Your task to perform on an android device: turn on airplane mode Image 0: 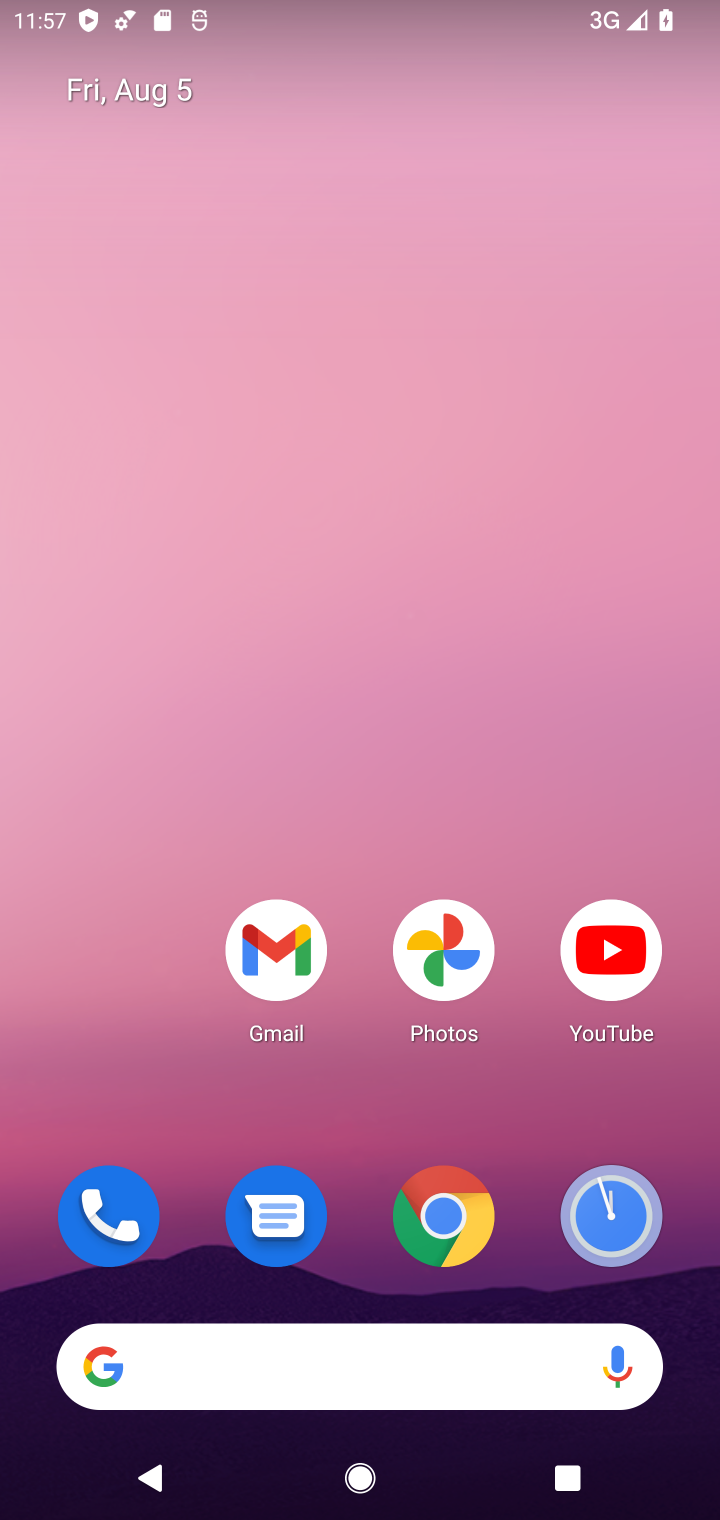
Step 0: drag from (441, 1343) to (403, 597)
Your task to perform on an android device: turn on airplane mode Image 1: 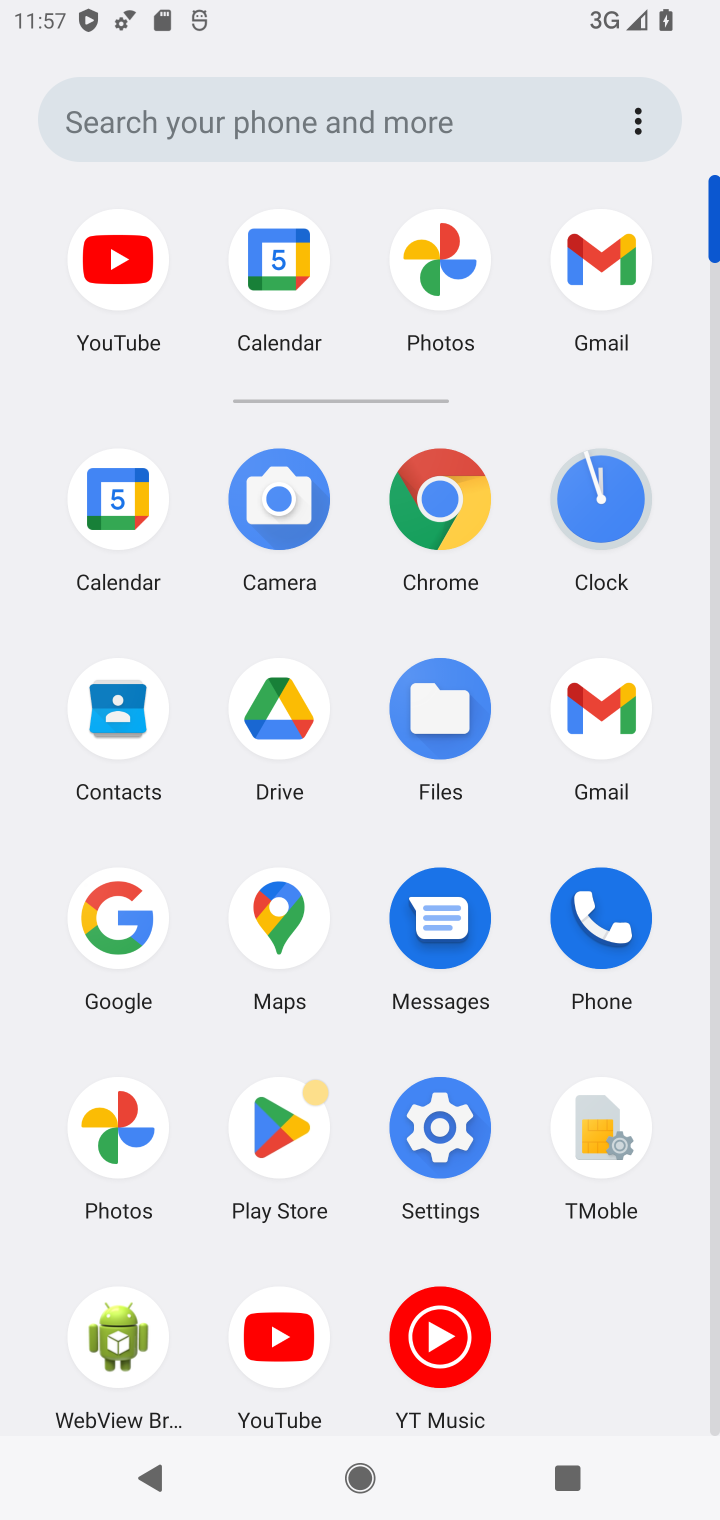
Step 1: click (459, 1111)
Your task to perform on an android device: turn on airplane mode Image 2: 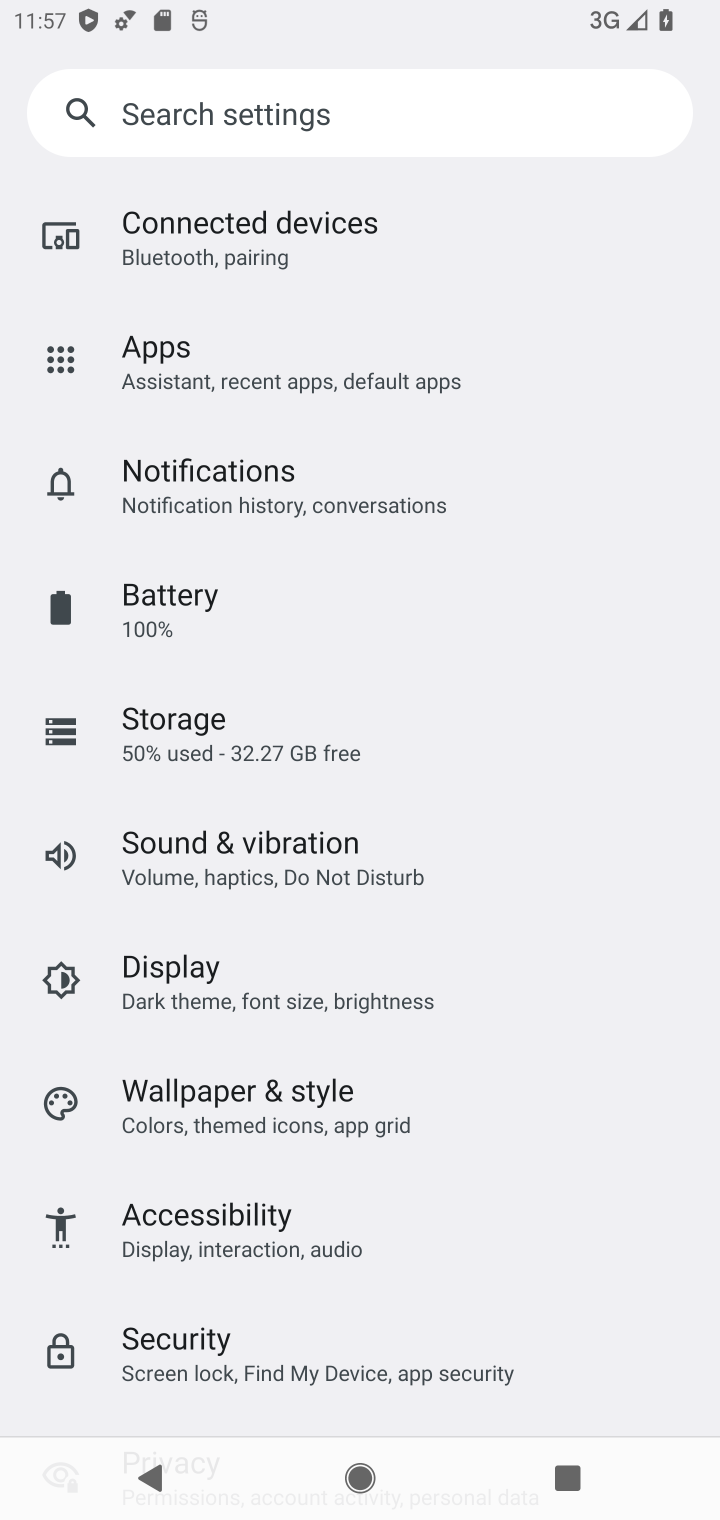
Step 2: drag from (637, 647) to (660, 1422)
Your task to perform on an android device: turn on airplane mode Image 3: 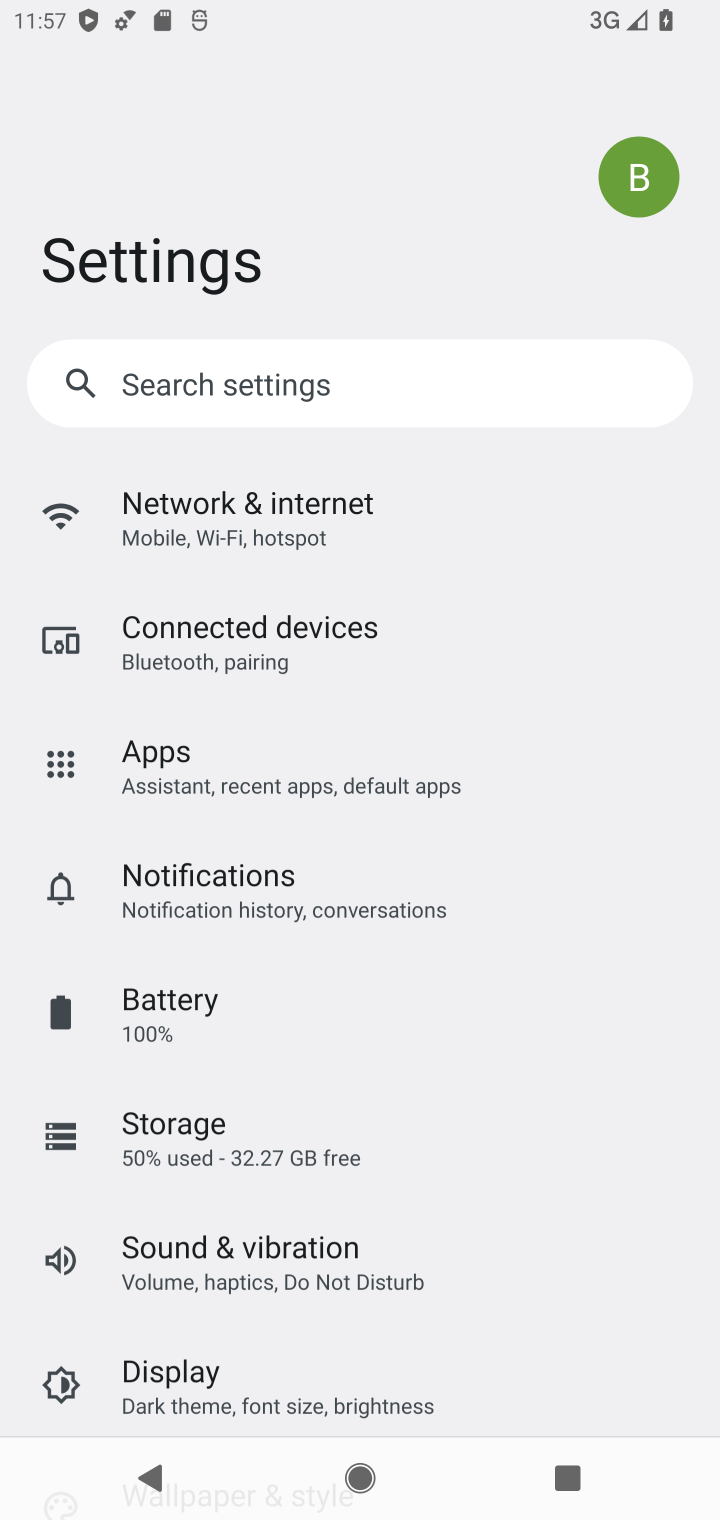
Step 3: click (295, 518)
Your task to perform on an android device: turn on airplane mode Image 4: 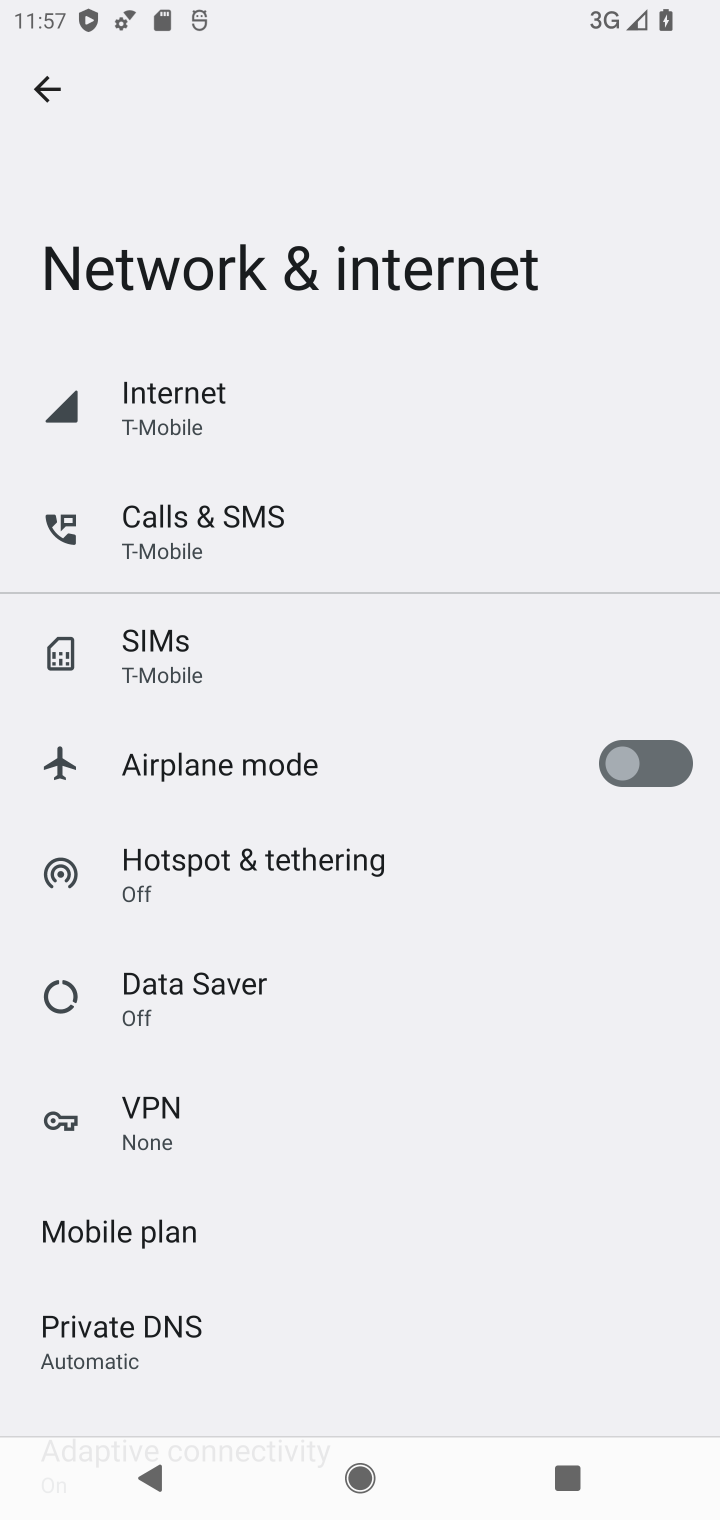
Step 4: click (676, 761)
Your task to perform on an android device: turn on airplane mode Image 5: 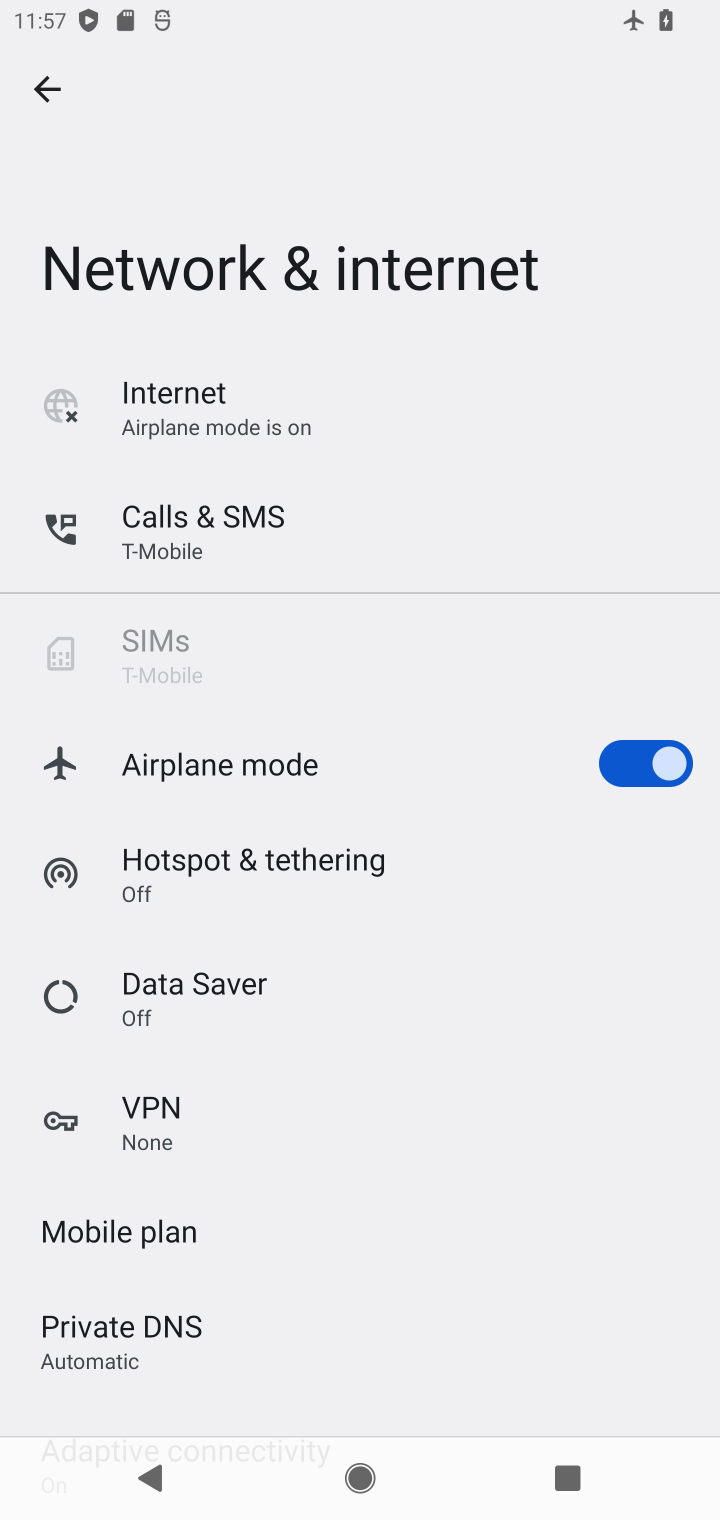
Step 5: task complete